Your task to perform on an android device: Open the map Image 0: 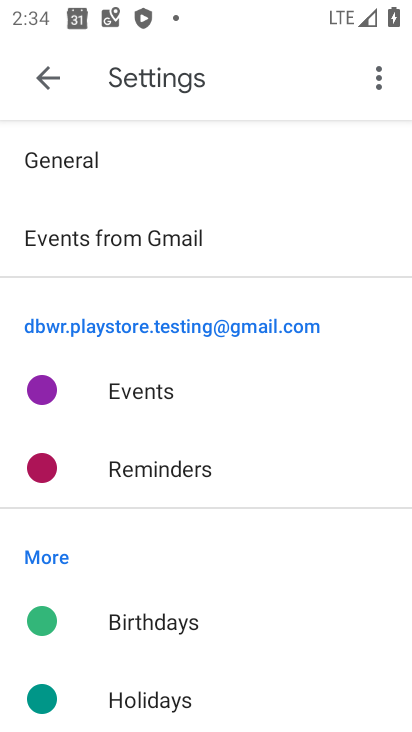
Step 0: press home button
Your task to perform on an android device: Open the map Image 1: 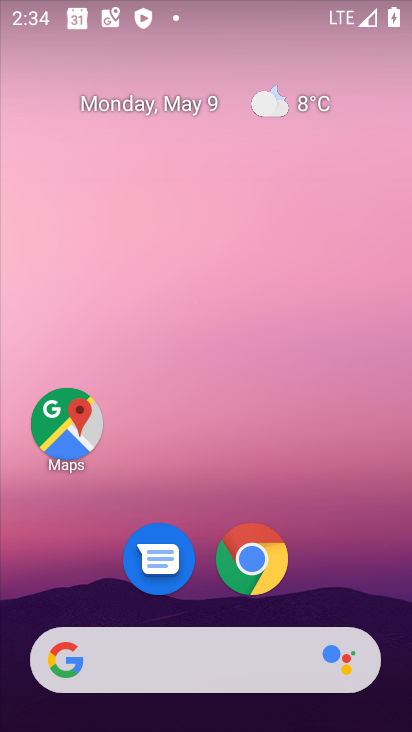
Step 1: click (61, 436)
Your task to perform on an android device: Open the map Image 2: 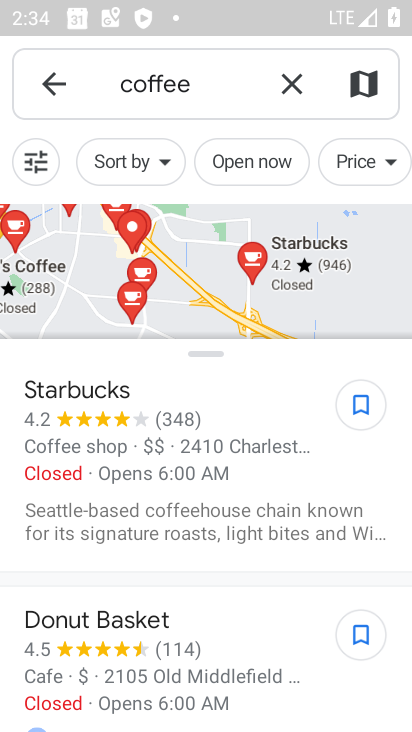
Step 2: task complete